Your task to perform on an android device: Look up the best rated 3d printer on Ali Express Image 0: 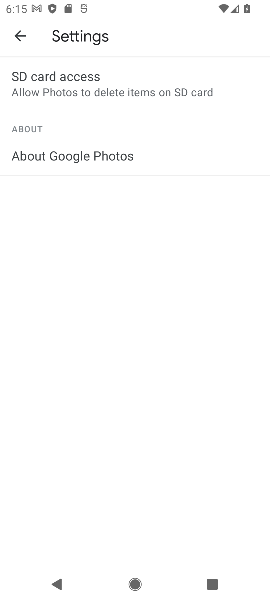
Step 0: click (31, 31)
Your task to perform on an android device: Look up the best rated 3d printer on Ali Express Image 1: 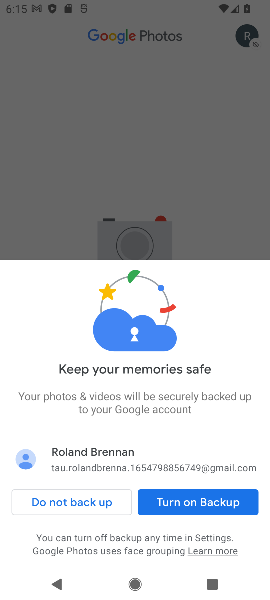
Step 1: press home button
Your task to perform on an android device: Look up the best rated 3d printer on Ali Express Image 2: 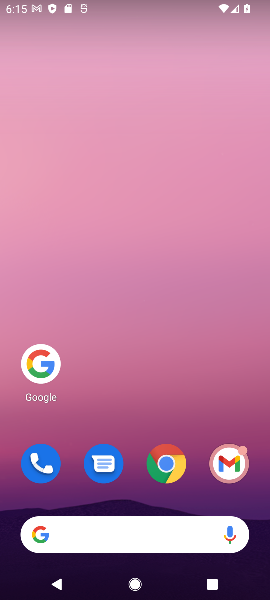
Step 2: click (26, 363)
Your task to perform on an android device: Look up the best rated 3d printer on Ali Express Image 3: 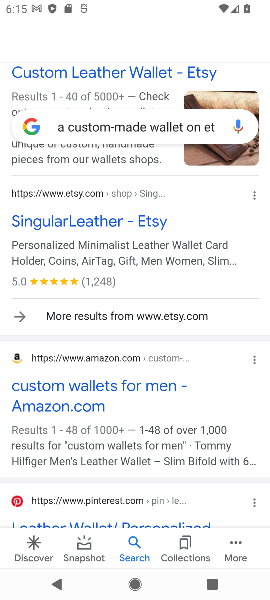
Step 3: drag from (119, 109) to (74, 521)
Your task to perform on an android device: Look up the best rated 3d printer on Ali Express Image 4: 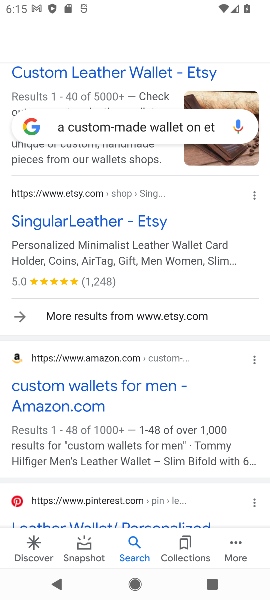
Step 4: click (113, 124)
Your task to perform on an android device: Look up the best rated 3d printer on Ali Express Image 5: 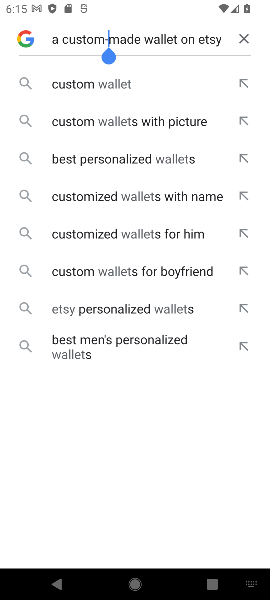
Step 5: click (248, 36)
Your task to perform on an android device: Look up the best rated 3d printer on Ali Express Image 6: 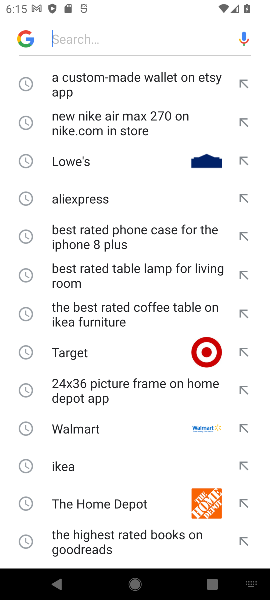
Step 6: click (90, 37)
Your task to perform on an android device: Look up the best rated 3d printer on Ali Express Image 7: 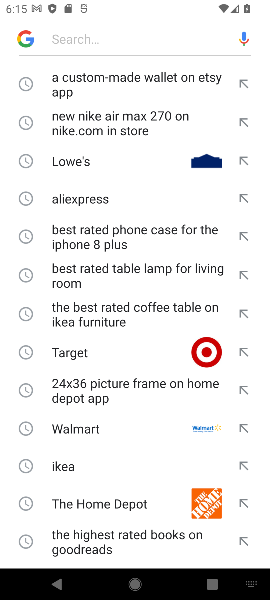
Step 7: type " best rated 3d printer on Ali Express "
Your task to perform on an android device: Look up the best rated 3d printer on Ali Express Image 8: 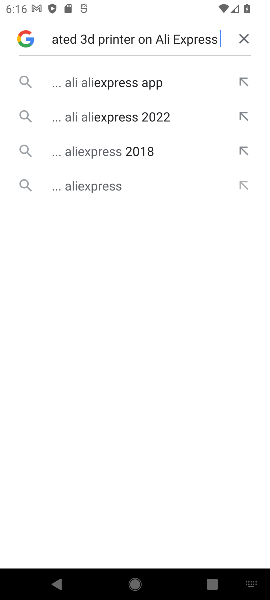
Step 8: click (74, 81)
Your task to perform on an android device: Look up the best rated 3d printer on Ali Express Image 9: 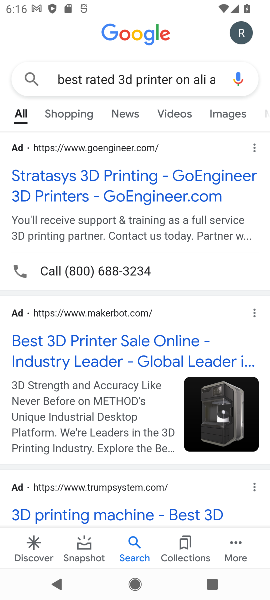
Step 9: drag from (60, 450) to (101, 148)
Your task to perform on an android device: Look up the best rated 3d printer on Ali Express Image 10: 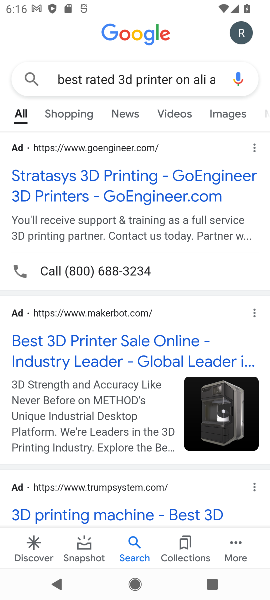
Step 10: drag from (113, 469) to (153, 143)
Your task to perform on an android device: Look up the best rated 3d printer on Ali Express Image 11: 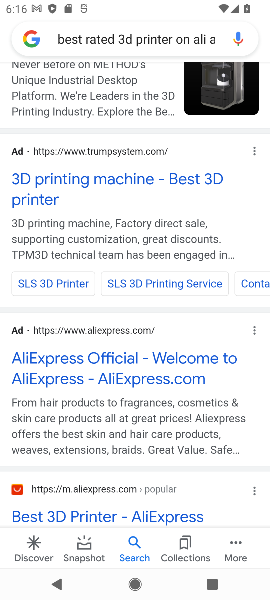
Step 11: click (118, 372)
Your task to perform on an android device: Look up the best rated 3d printer on Ali Express Image 12: 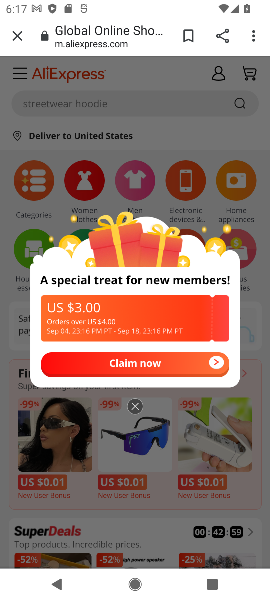
Step 12: click (9, 29)
Your task to perform on an android device: Look up the best rated 3d printer on Ali Express Image 13: 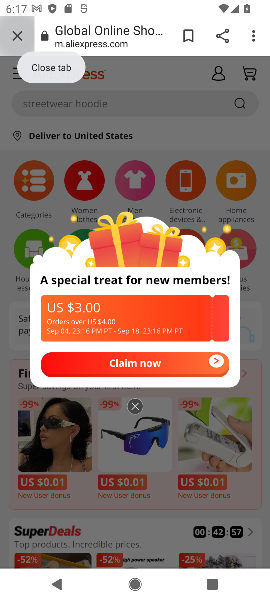
Step 13: click (21, 38)
Your task to perform on an android device: Look up the best rated 3d printer on Ali Express Image 14: 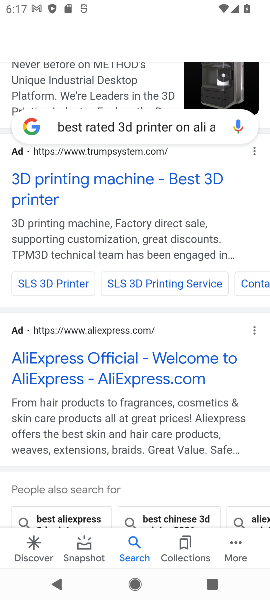
Step 14: drag from (109, 406) to (150, 218)
Your task to perform on an android device: Look up the best rated 3d printer on Ali Express Image 15: 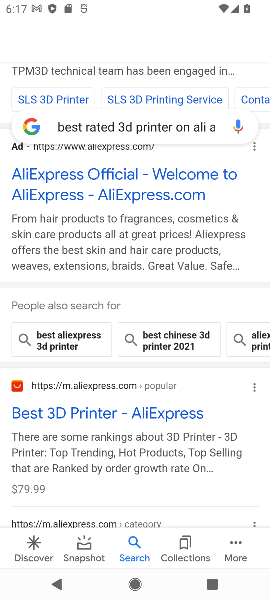
Step 15: click (85, 419)
Your task to perform on an android device: Look up the best rated 3d printer on Ali Express Image 16: 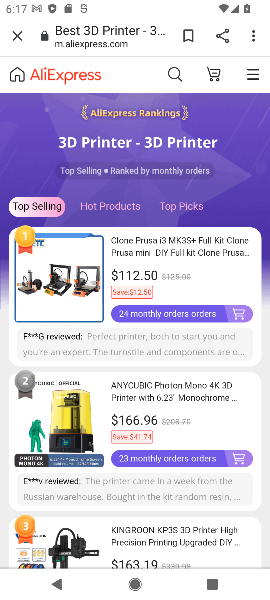
Step 16: task complete